Your task to perform on an android device: open a bookmark in the chrome app Image 0: 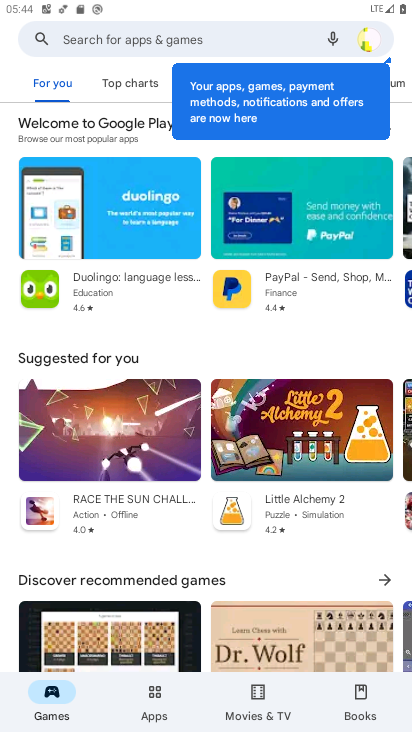
Step 0: press home button
Your task to perform on an android device: open a bookmark in the chrome app Image 1: 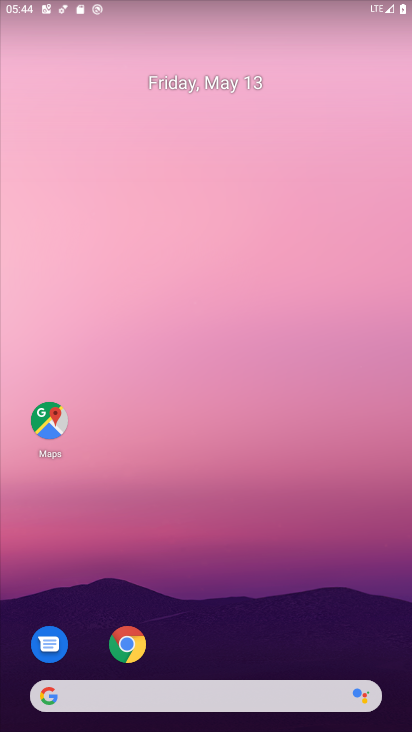
Step 1: click (140, 638)
Your task to perform on an android device: open a bookmark in the chrome app Image 2: 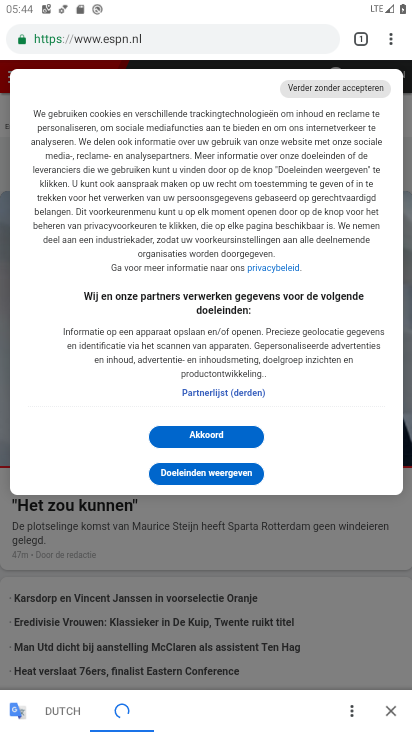
Step 2: click (392, 36)
Your task to perform on an android device: open a bookmark in the chrome app Image 3: 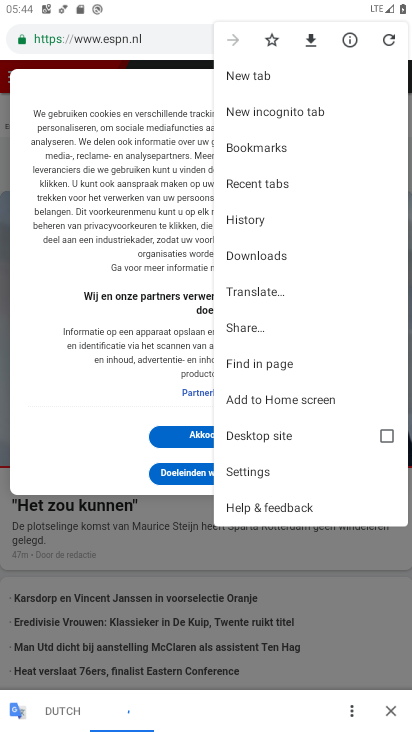
Step 3: click (278, 145)
Your task to perform on an android device: open a bookmark in the chrome app Image 4: 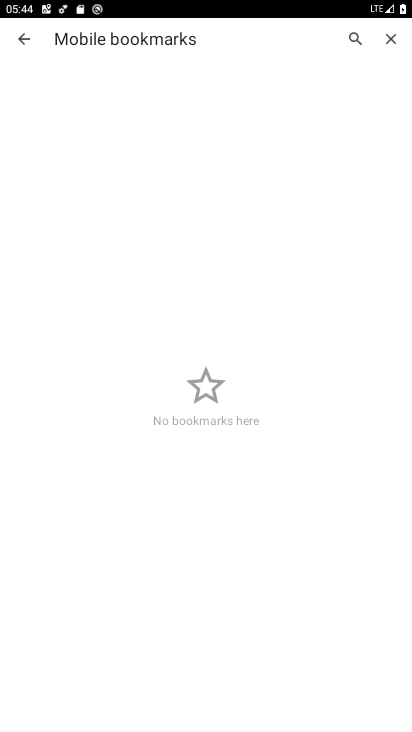
Step 4: click (392, 32)
Your task to perform on an android device: open a bookmark in the chrome app Image 5: 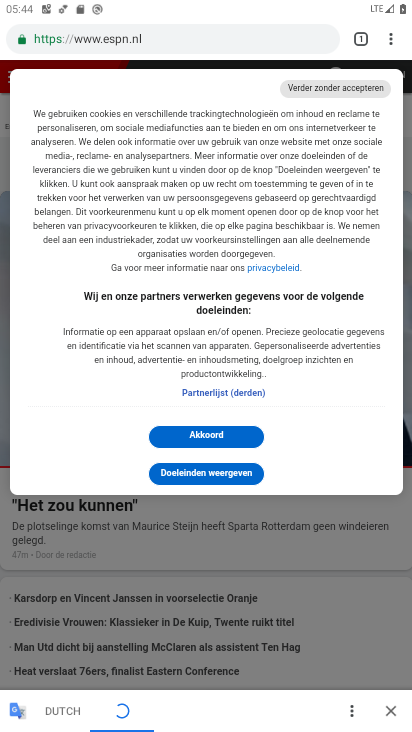
Step 5: click (387, 40)
Your task to perform on an android device: open a bookmark in the chrome app Image 6: 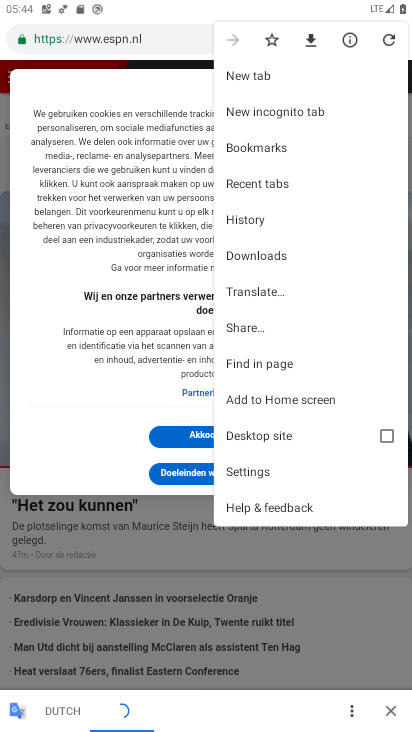
Step 6: click (84, 267)
Your task to perform on an android device: open a bookmark in the chrome app Image 7: 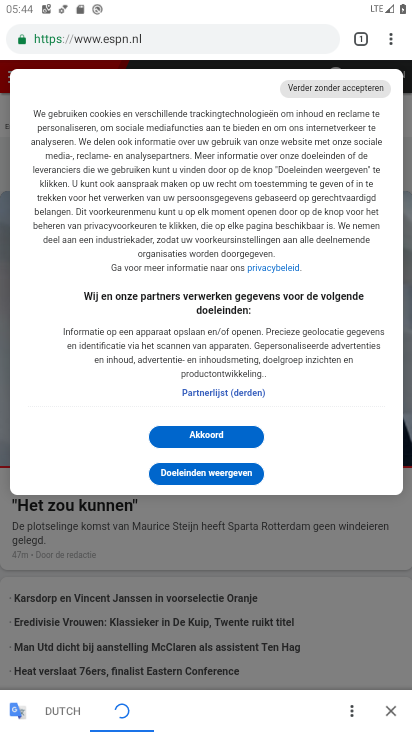
Step 7: click (365, 38)
Your task to perform on an android device: open a bookmark in the chrome app Image 8: 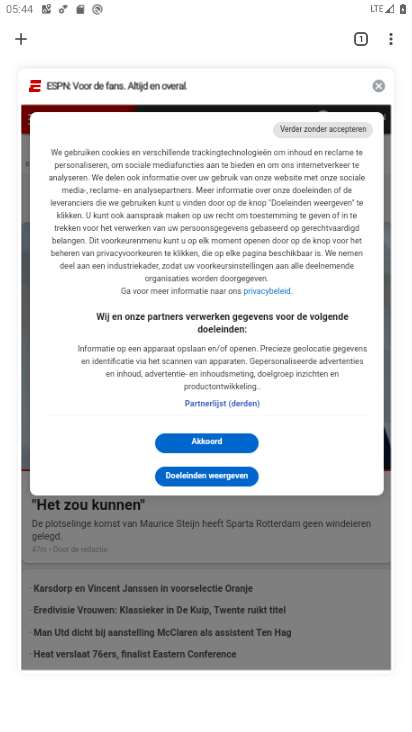
Step 8: click (25, 46)
Your task to perform on an android device: open a bookmark in the chrome app Image 9: 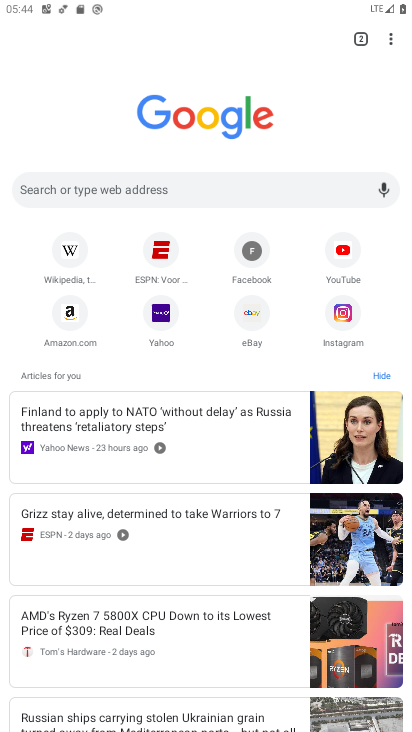
Step 9: click (260, 248)
Your task to perform on an android device: open a bookmark in the chrome app Image 10: 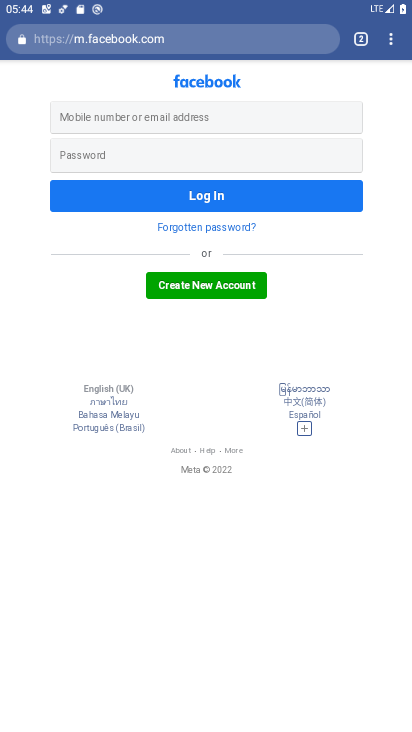
Step 10: task complete